Your task to perform on an android device: Open the web browser Image 0: 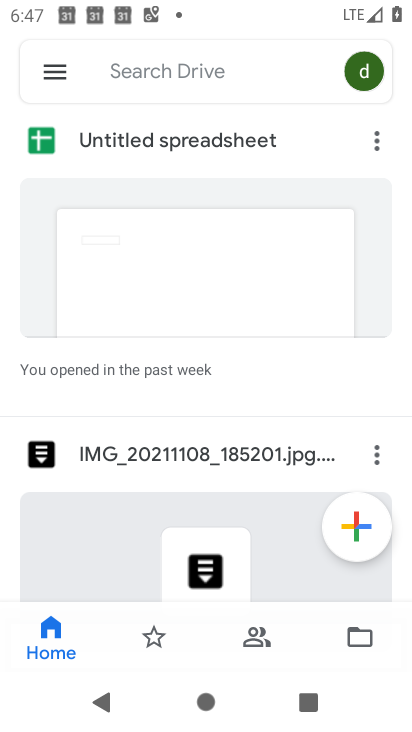
Step 0: press home button
Your task to perform on an android device: Open the web browser Image 1: 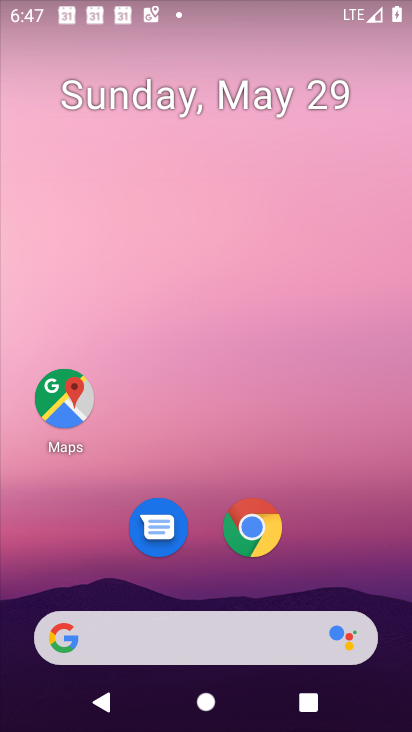
Step 1: click (229, 530)
Your task to perform on an android device: Open the web browser Image 2: 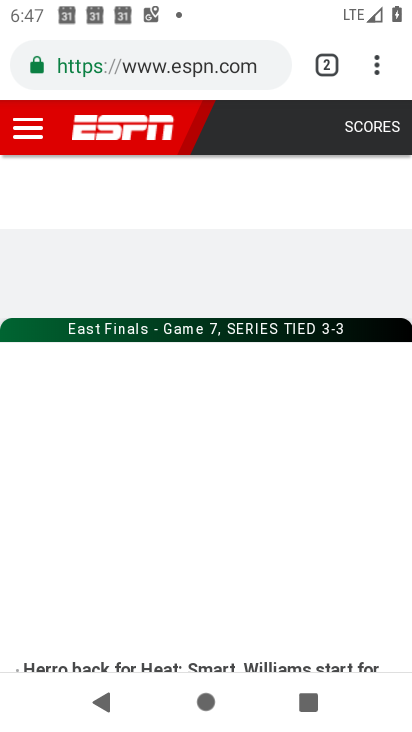
Step 2: press back button
Your task to perform on an android device: Open the web browser Image 3: 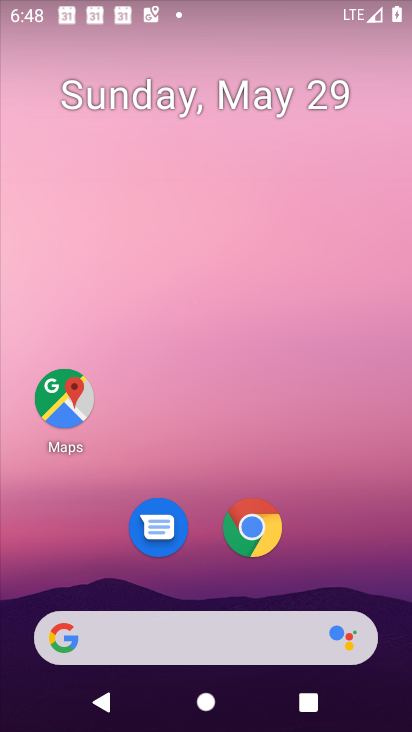
Step 3: click (254, 533)
Your task to perform on an android device: Open the web browser Image 4: 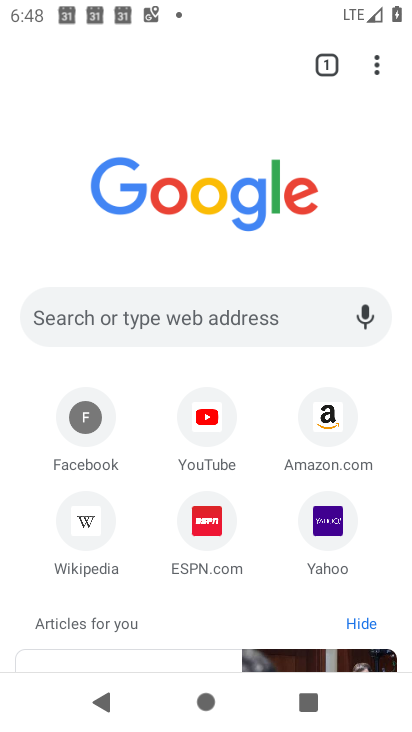
Step 4: task complete